Your task to perform on an android device: read, delete, or share a saved page in the chrome app Image 0: 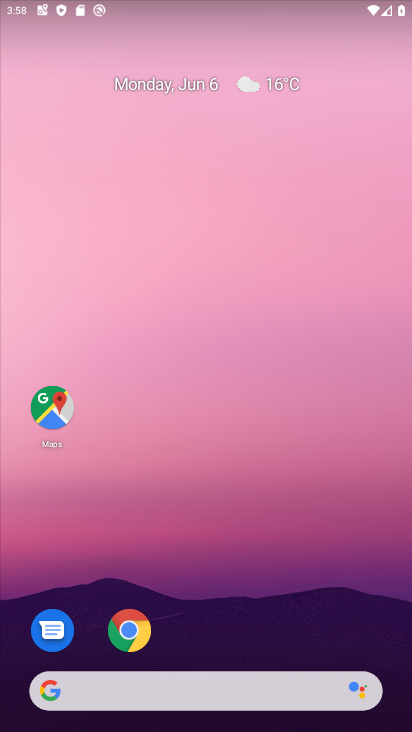
Step 0: click (143, 624)
Your task to perform on an android device: read, delete, or share a saved page in the chrome app Image 1: 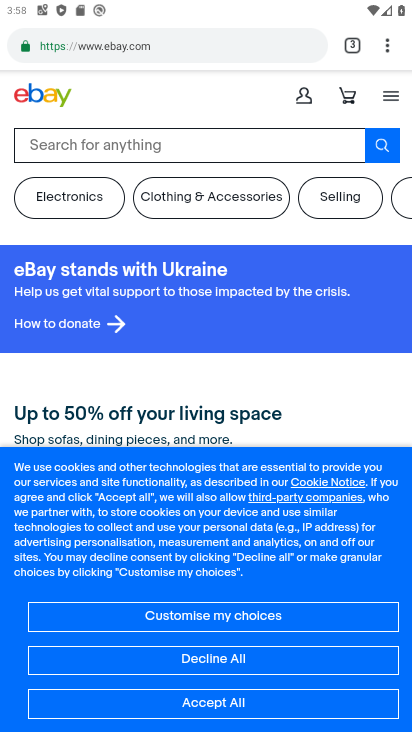
Step 1: drag from (389, 29) to (215, 301)
Your task to perform on an android device: read, delete, or share a saved page in the chrome app Image 2: 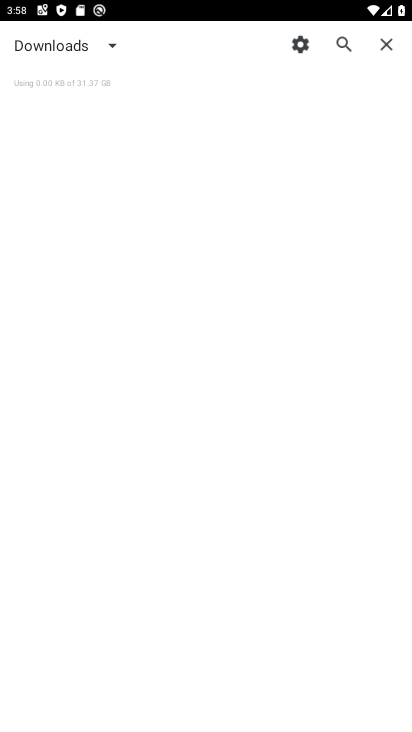
Step 2: click (103, 42)
Your task to perform on an android device: read, delete, or share a saved page in the chrome app Image 3: 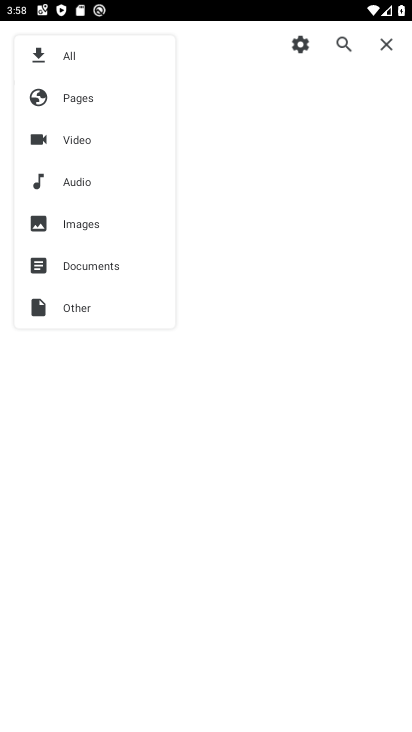
Step 3: click (74, 96)
Your task to perform on an android device: read, delete, or share a saved page in the chrome app Image 4: 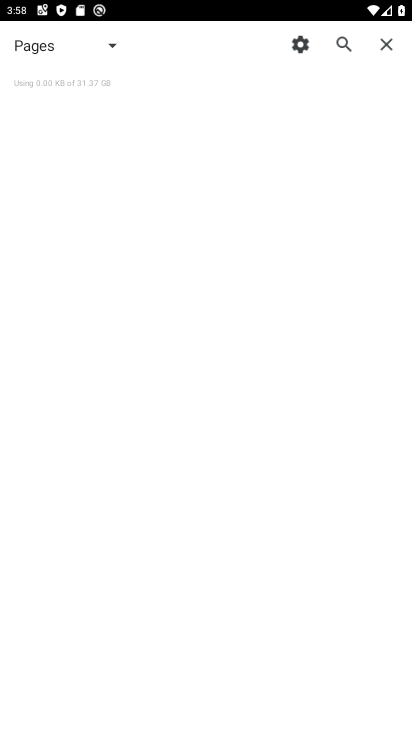
Step 4: task complete